Your task to perform on an android device: Add usb-c to usb-b to the cart on costco.com Image 0: 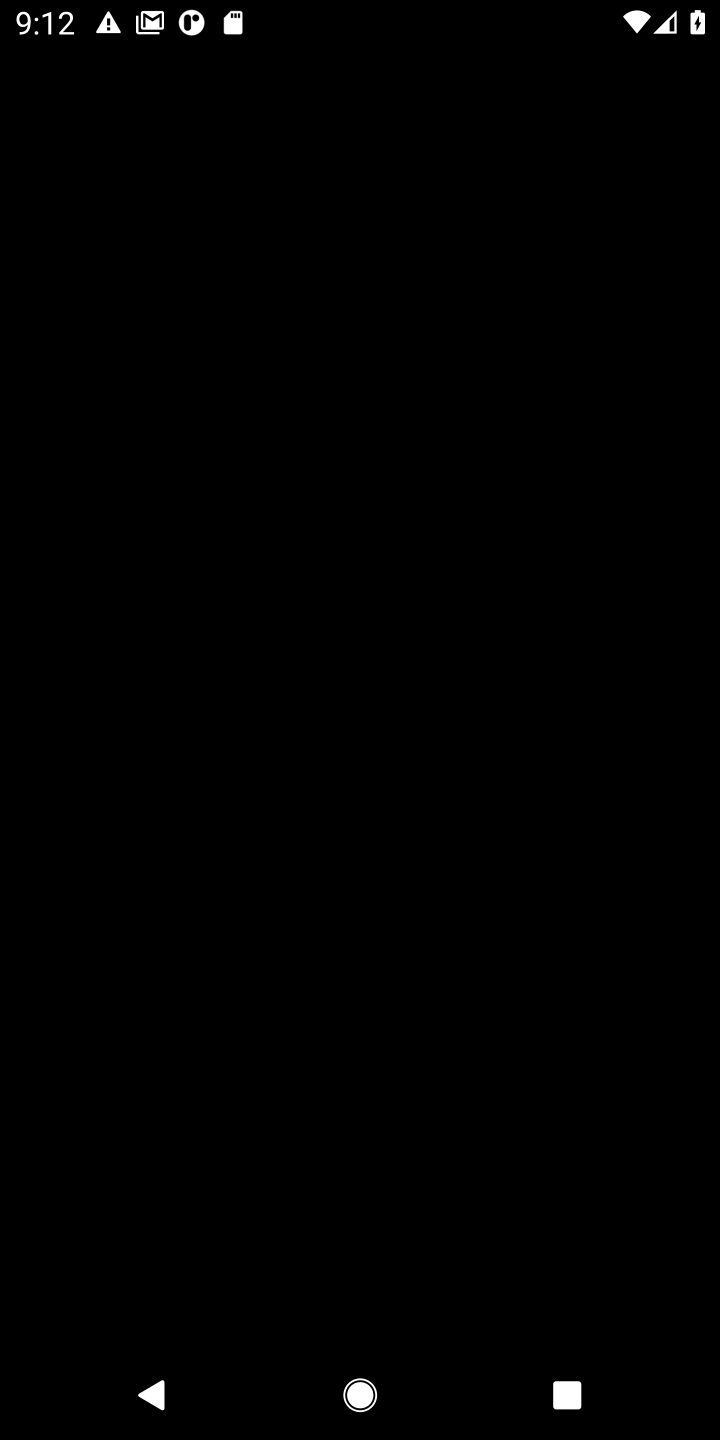
Step 0: press home button
Your task to perform on an android device: Add usb-c to usb-b to the cart on costco.com Image 1: 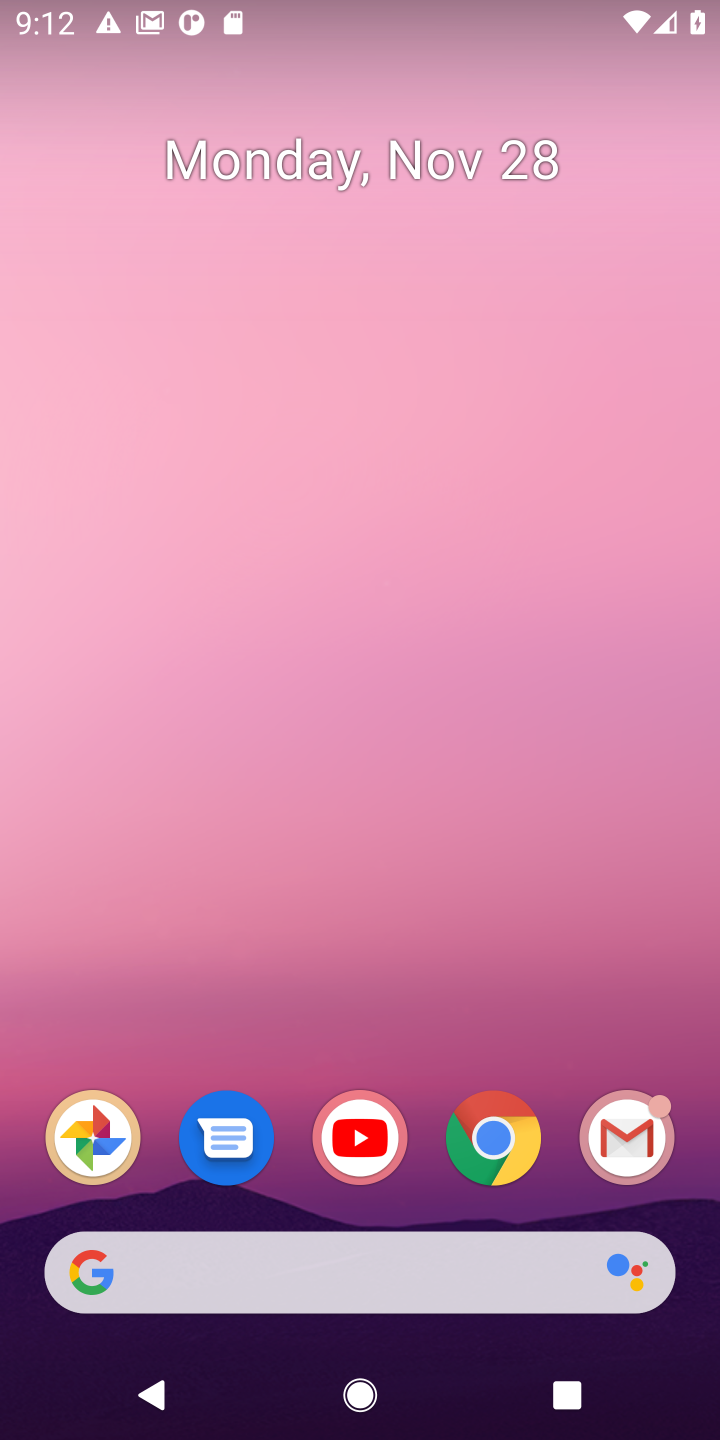
Step 1: click (481, 1161)
Your task to perform on an android device: Add usb-c to usb-b to the cart on costco.com Image 2: 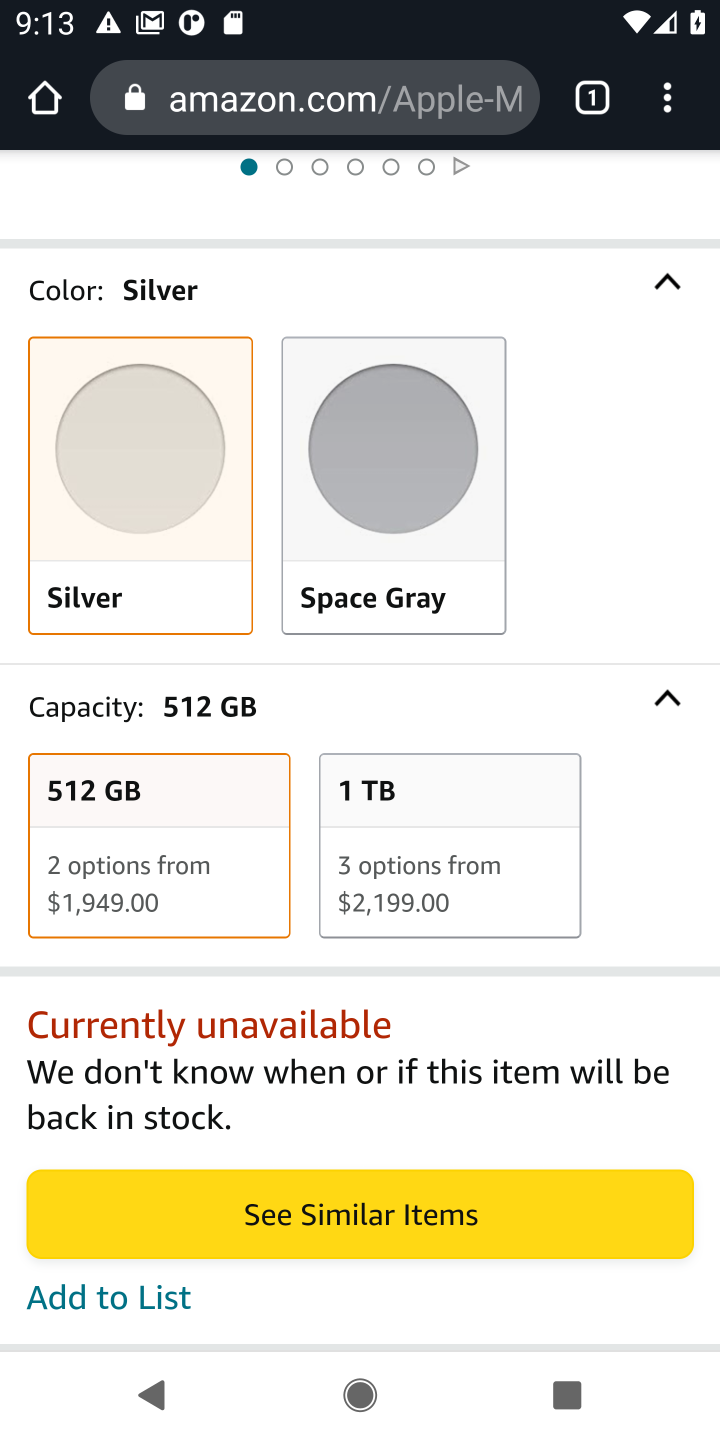
Step 2: click (302, 115)
Your task to perform on an android device: Add usb-c to usb-b to the cart on costco.com Image 3: 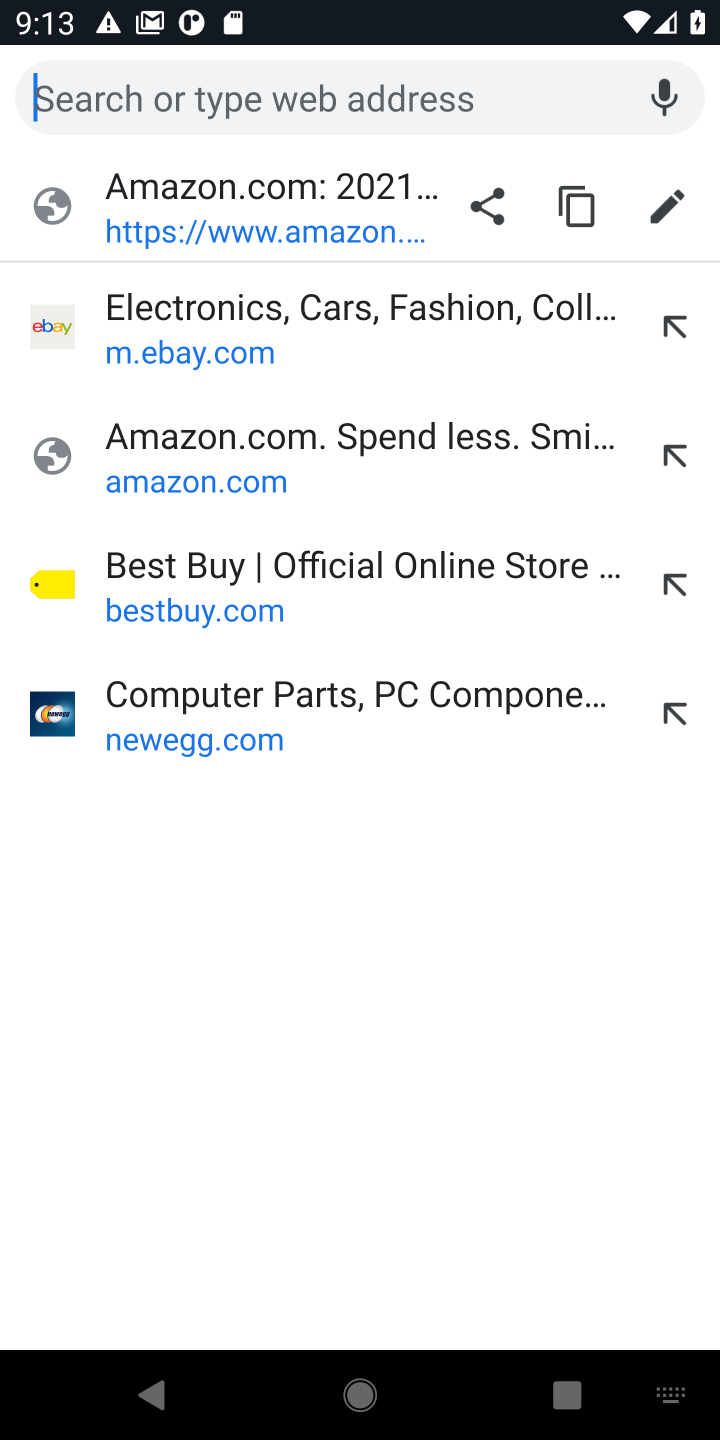
Step 3: type "costco.com"
Your task to perform on an android device: Add usb-c to usb-b to the cart on costco.com Image 4: 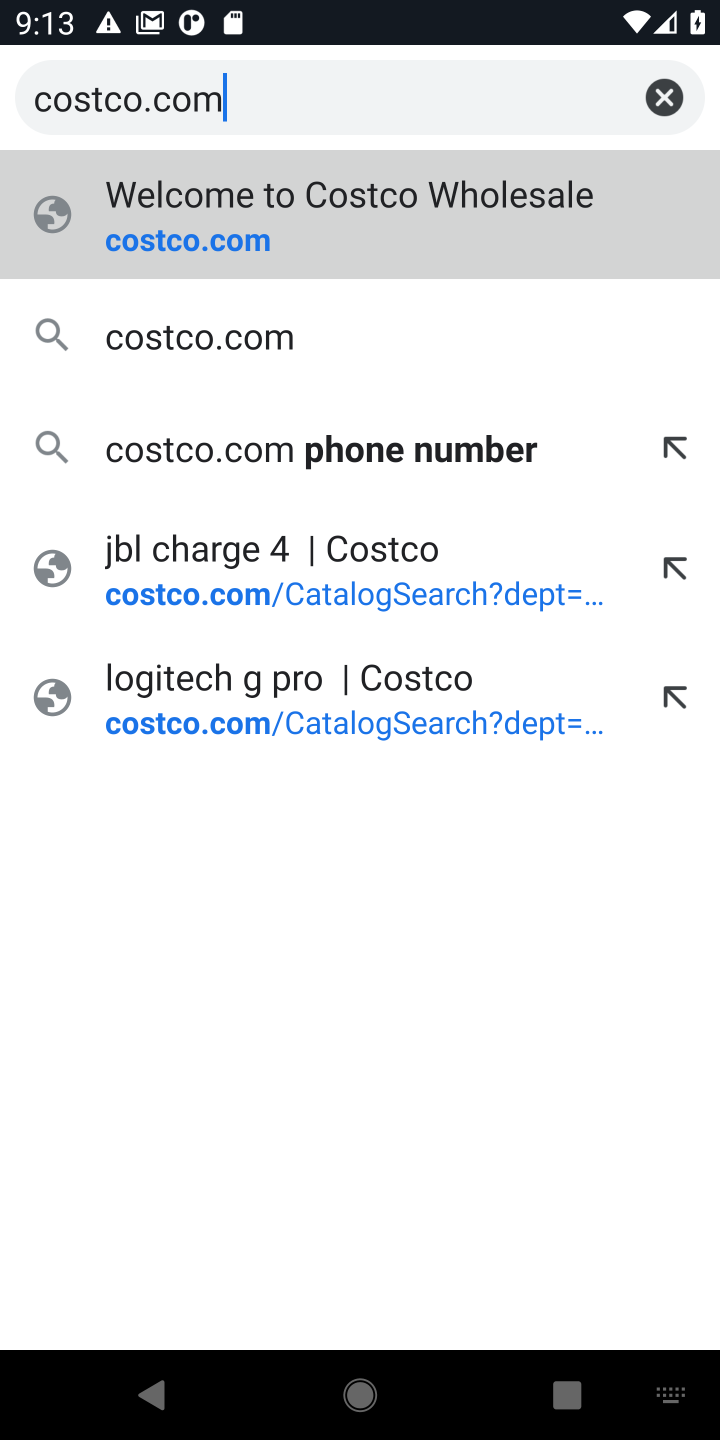
Step 4: click (130, 239)
Your task to perform on an android device: Add usb-c to usb-b to the cart on costco.com Image 5: 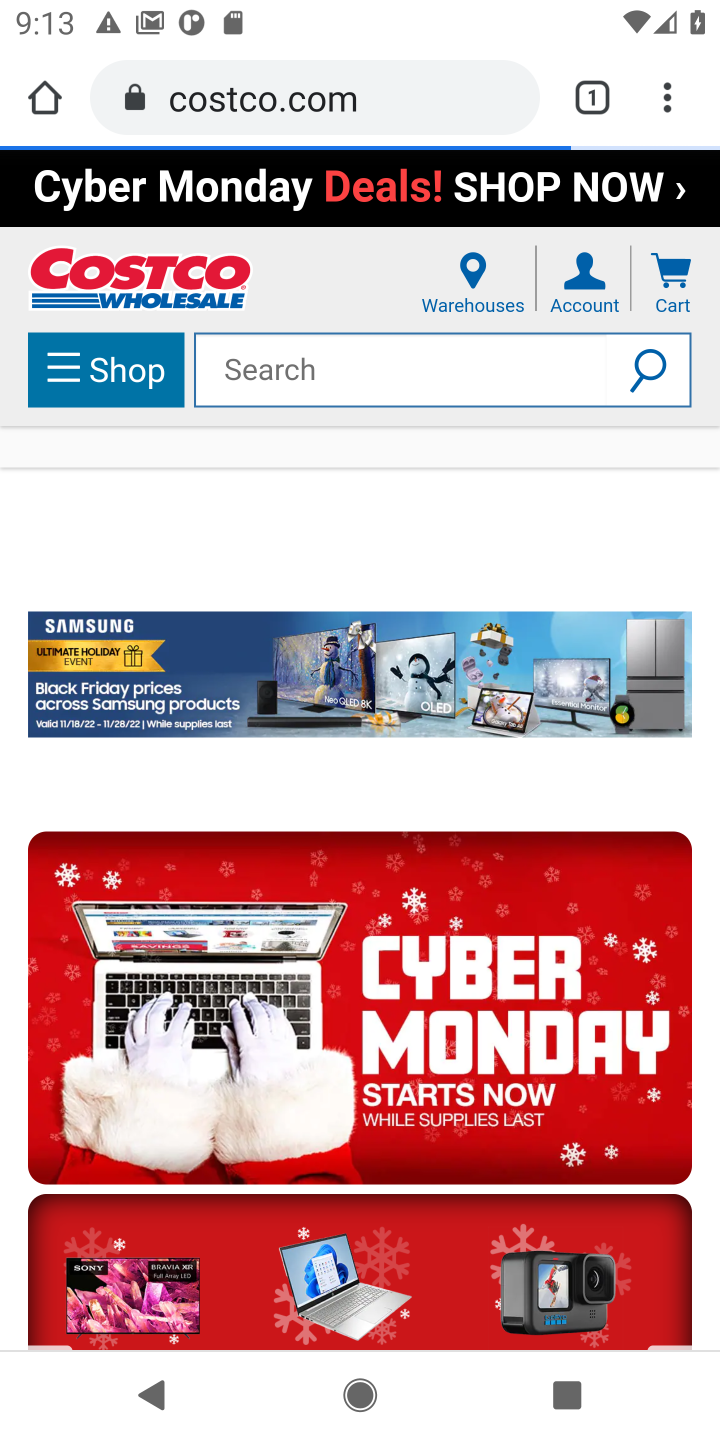
Step 5: click (260, 365)
Your task to perform on an android device: Add usb-c to usb-b to the cart on costco.com Image 6: 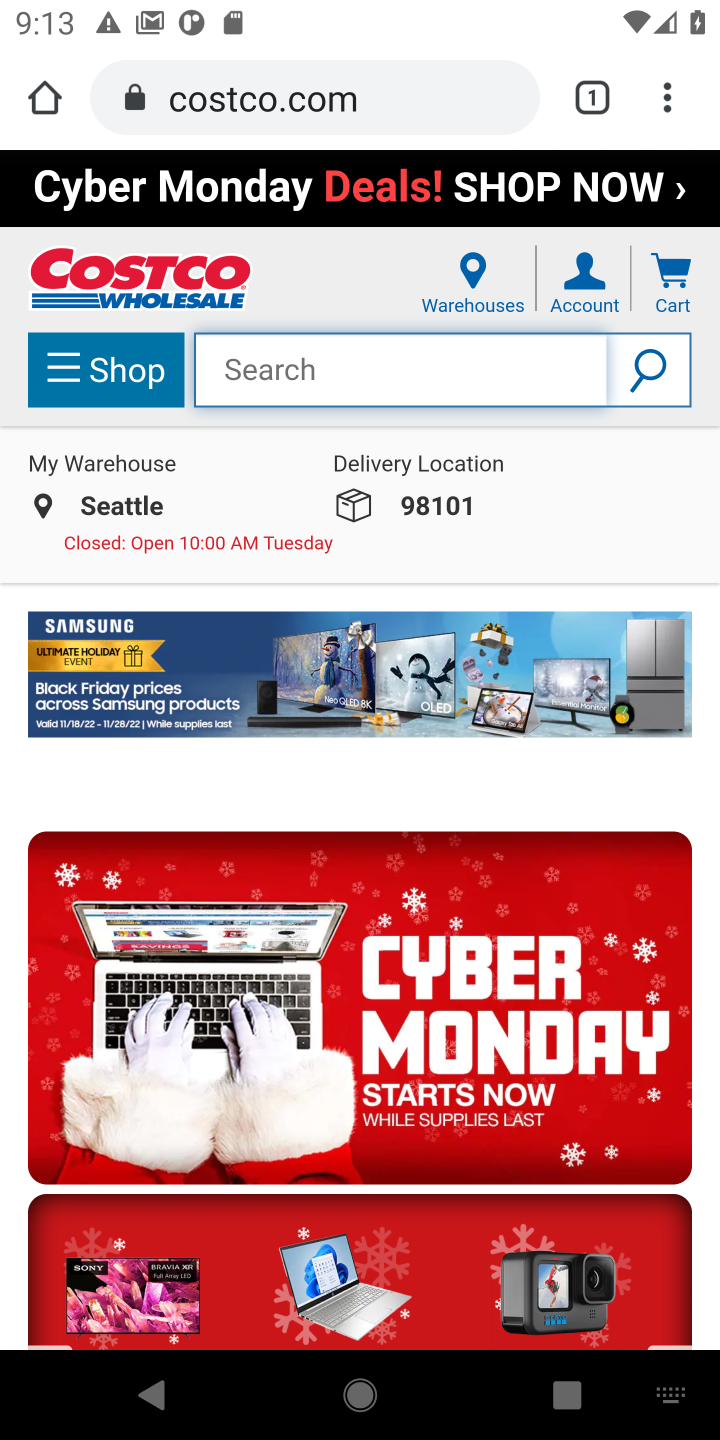
Step 6: type "usb-c to usb-b "
Your task to perform on an android device: Add usb-c to usb-b to the cart on costco.com Image 7: 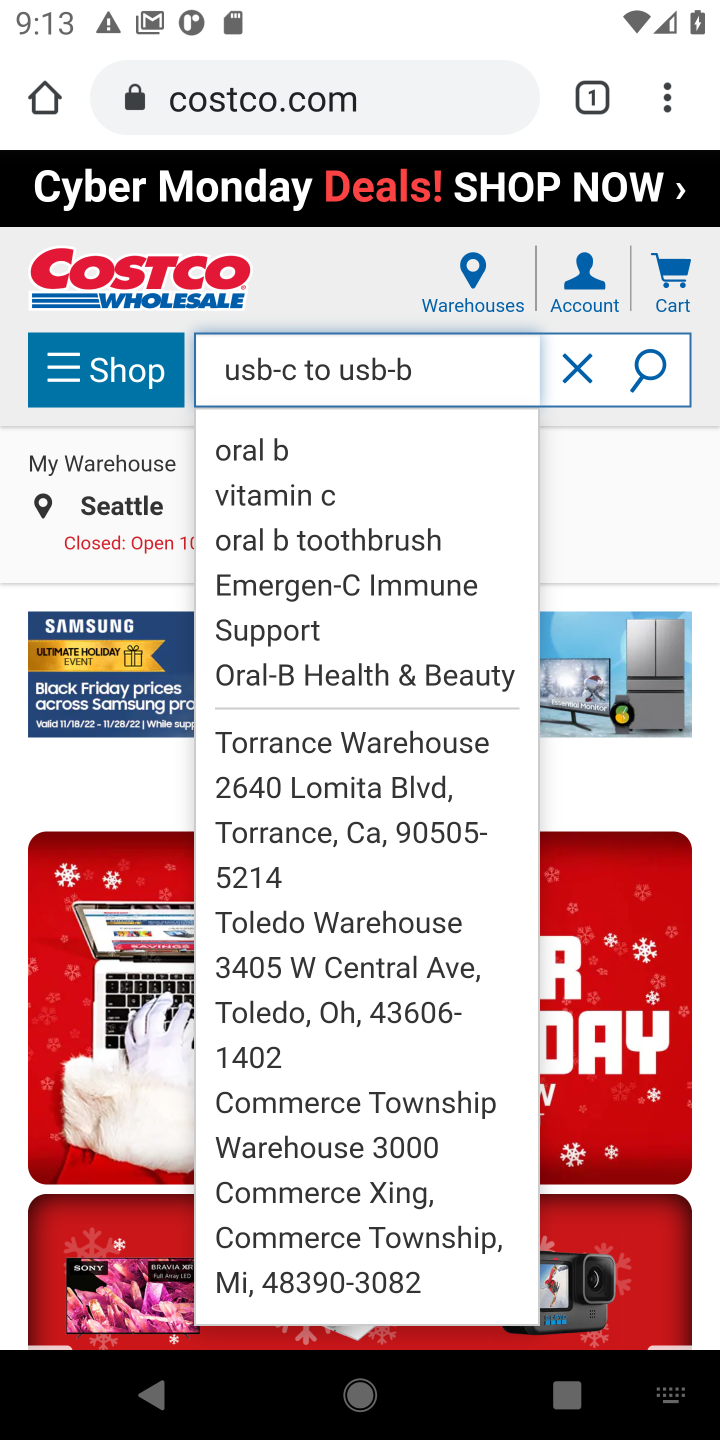
Step 7: click (639, 373)
Your task to perform on an android device: Add usb-c to usb-b to the cart on costco.com Image 8: 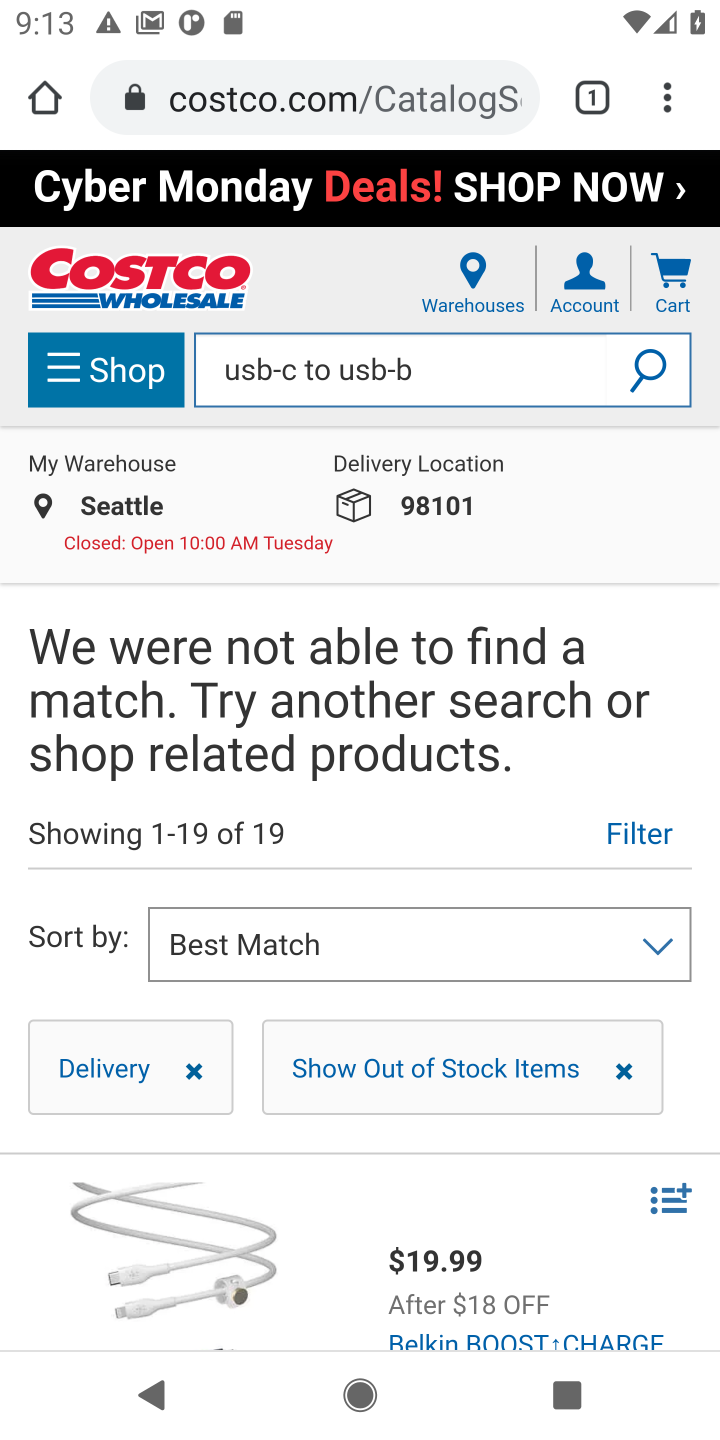
Step 8: task complete